Your task to perform on an android device: refresh tabs in the chrome app Image 0: 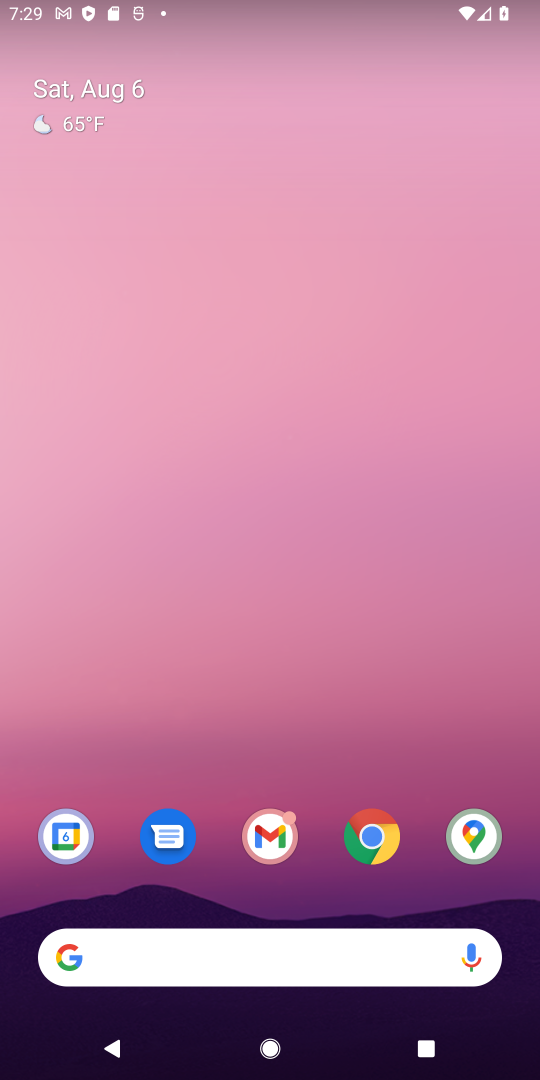
Step 0: drag from (445, 911) to (311, 11)
Your task to perform on an android device: refresh tabs in the chrome app Image 1: 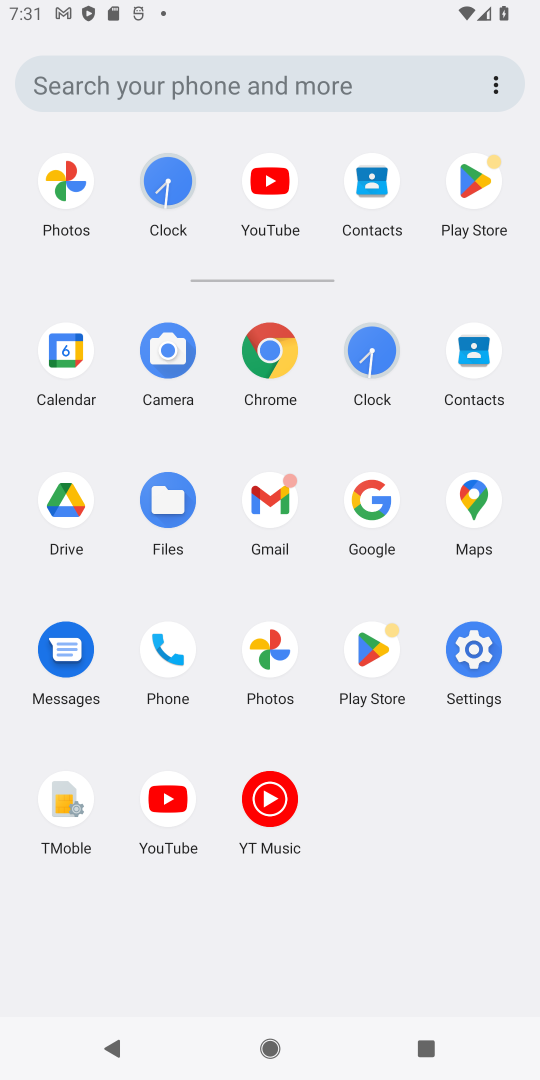
Step 1: click (273, 353)
Your task to perform on an android device: refresh tabs in the chrome app Image 2: 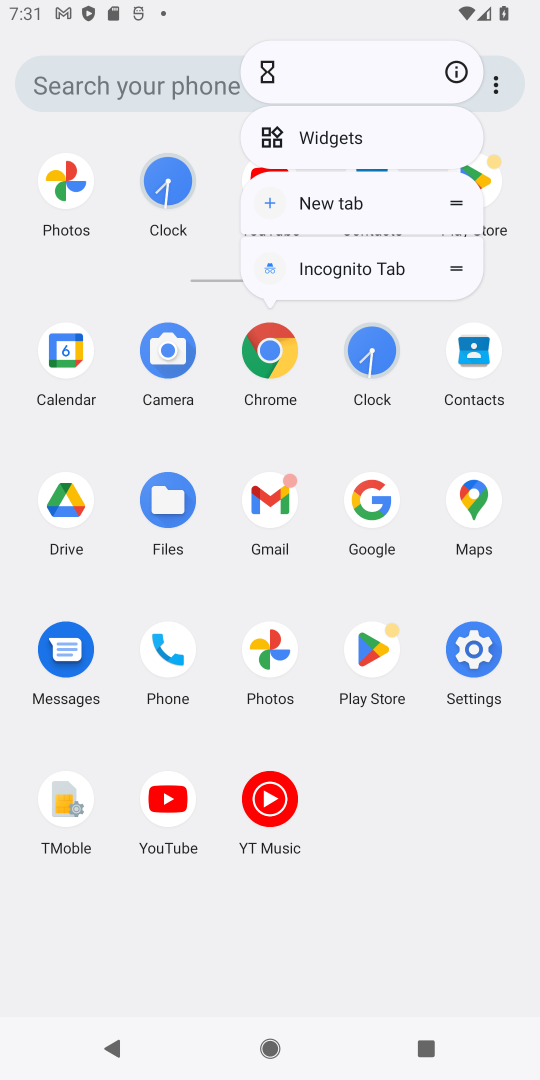
Step 2: click (265, 361)
Your task to perform on an android device: refresh tabs in the chrome app Image 3: 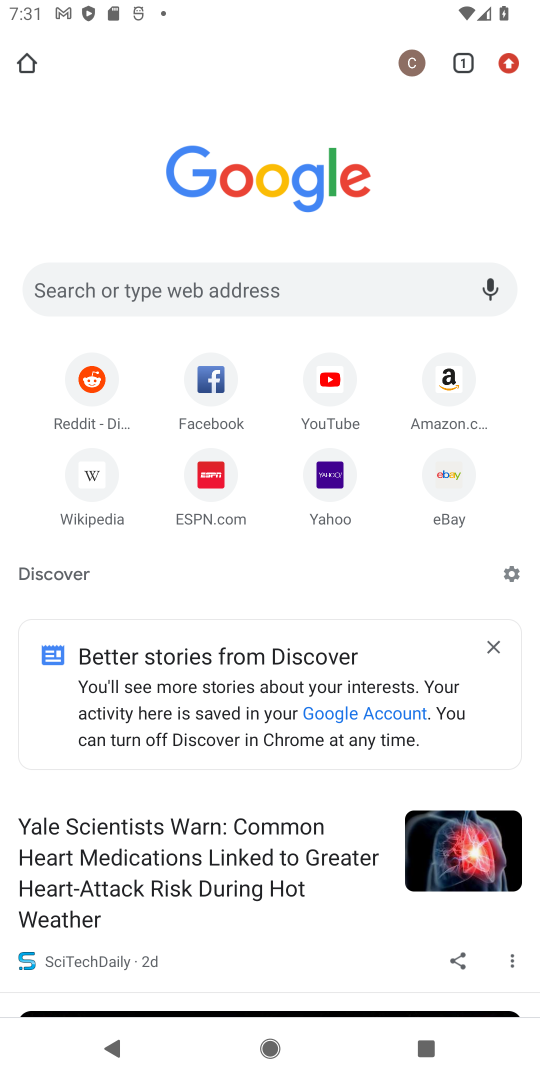
Step 3: click (510, 68)
Your task to perform on an android device: refresh tabs in the chrome app Image 4: 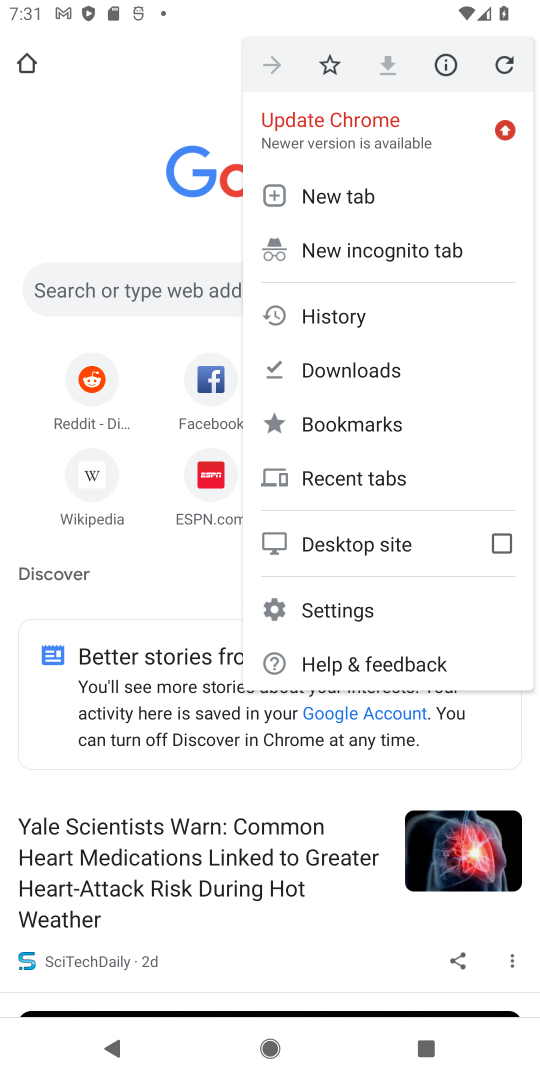
Step 4: click (510, 68)
Your task to perform on an android device: refresh tabs in the chrome app Image 5: 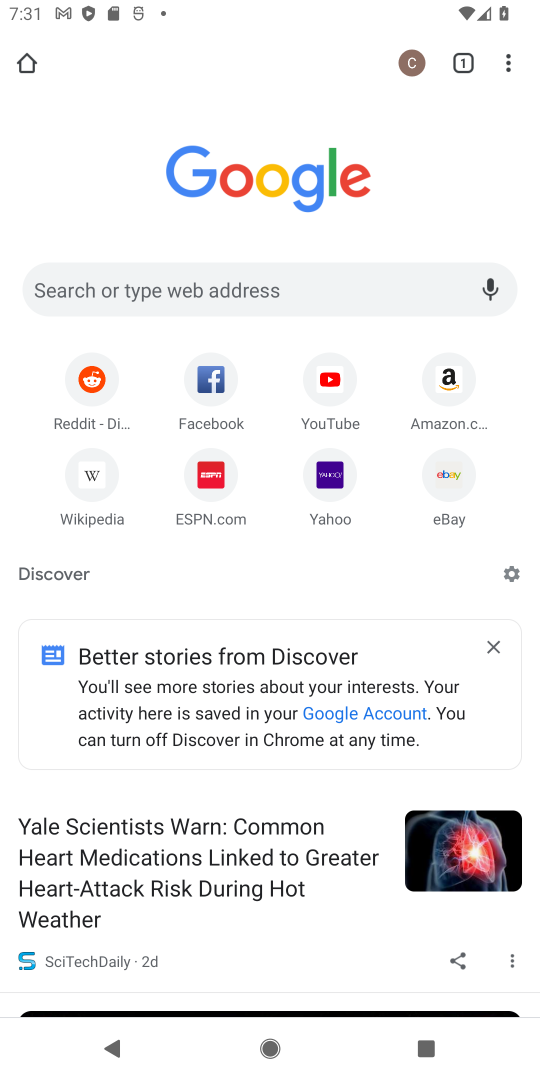
Step 5: task complete